Your task to perform on an android device: Show me popular games on the Play Store Image 0: 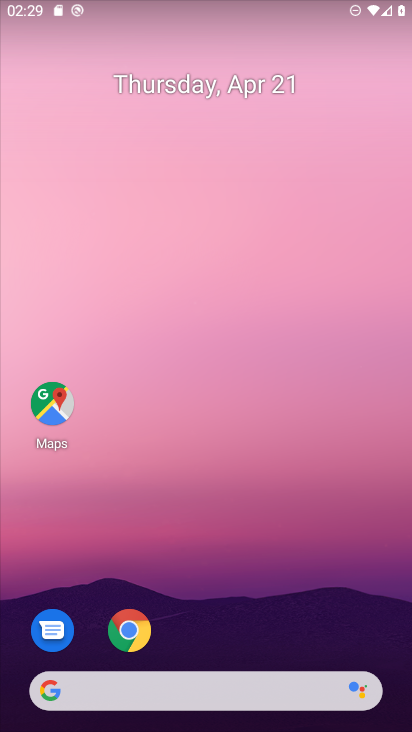
Step 0: drag from (264, 609) to (100, 87)
Your task to perform on an android device: Show me popular games on the Play Store Image 1: 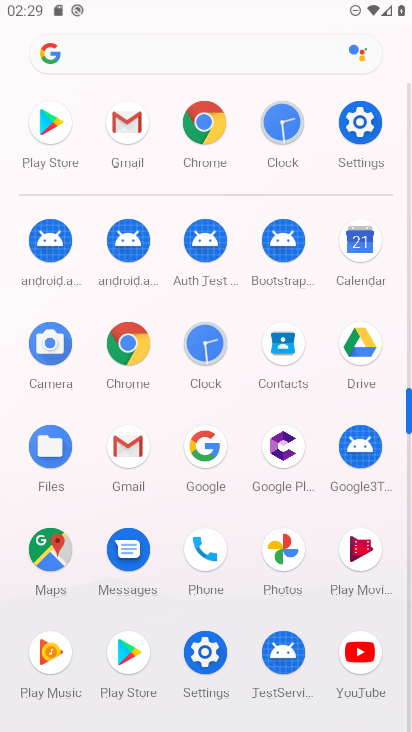
Step 1: click (133, 651)
Your task to perform on an android device: Show me popular games on the Play Store Image 2: 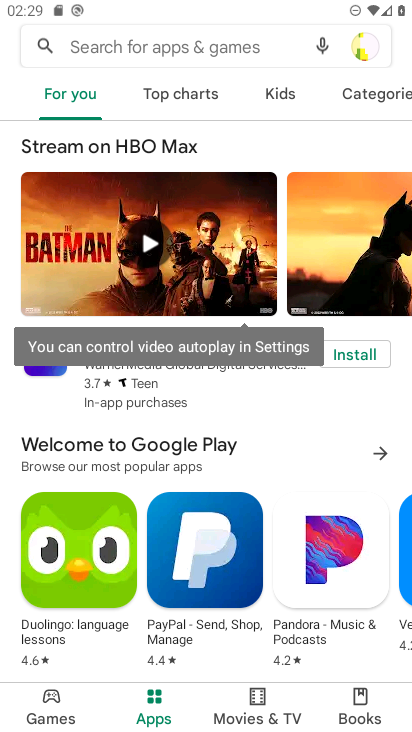
Step 2: click (187, 100)
Your task to perform on an android device: Show me popular games on the Play Store Image 3: 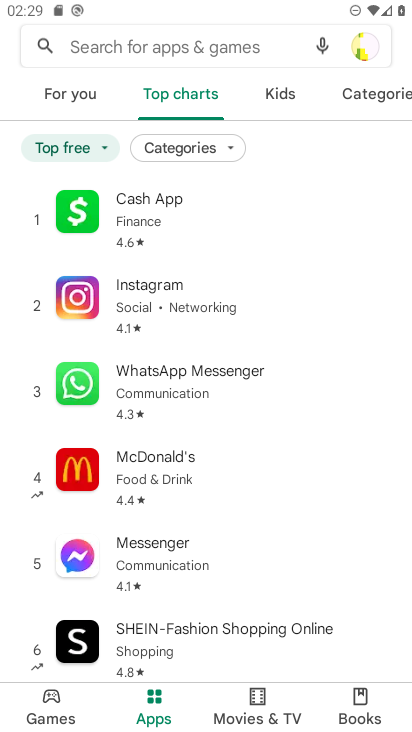
Step 3: click (61, 707)
Your task to perform on an android device: Show me popular games on the Play Store Image 4: 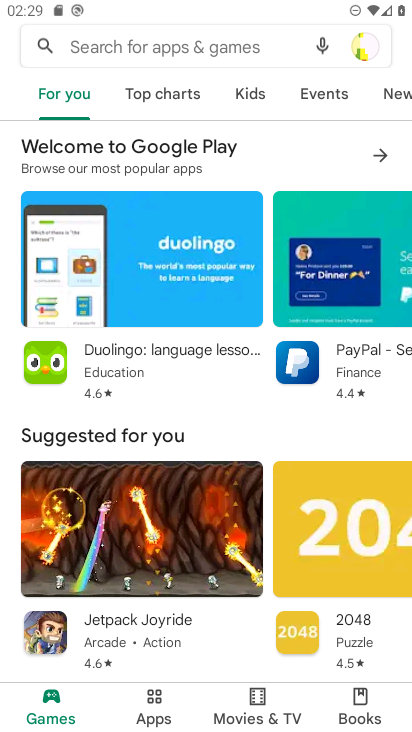
Step 4: task complete